Your task to perform on an android device: Open network settings Image 0: 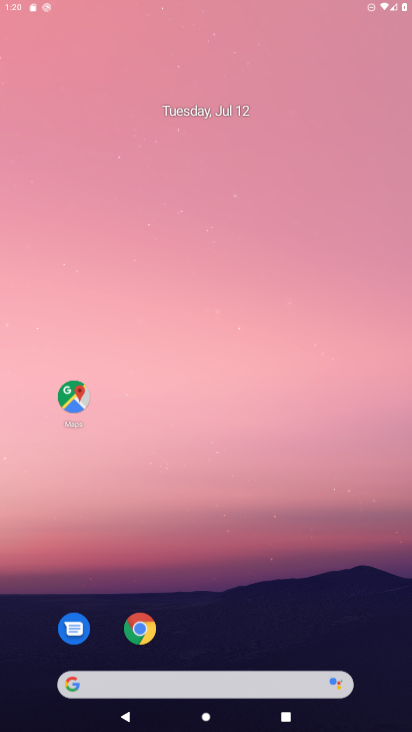
Step 0: press home button
Your task to perform on an android device: Open network settings Image 1: 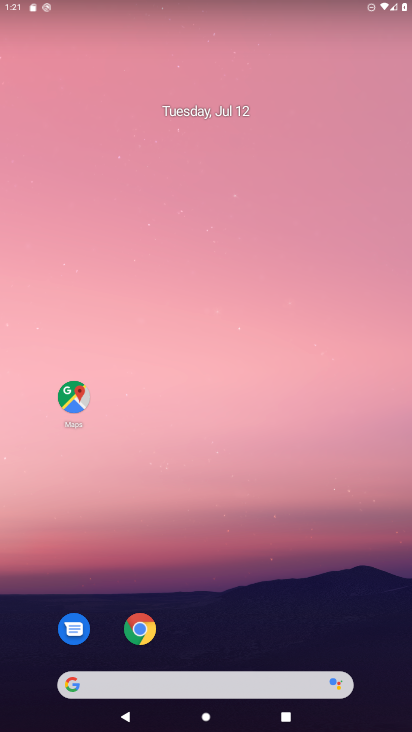
Step 1: drag from (226, 643) to (239, 37)
Your task to perform on an android device: Open network settings Image 2: 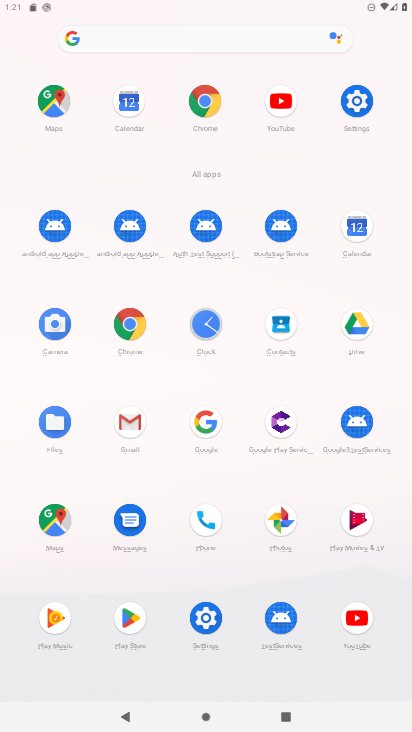
Step 2: click (354, 95)
Your task to perform on an android device: Open network settings Image 3: 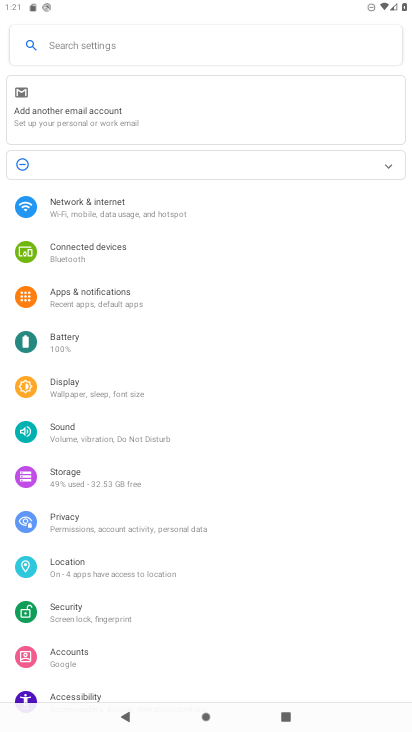
Step 3: click (86, 202)
Your task to perform on an android device: Open network settings Image 4: 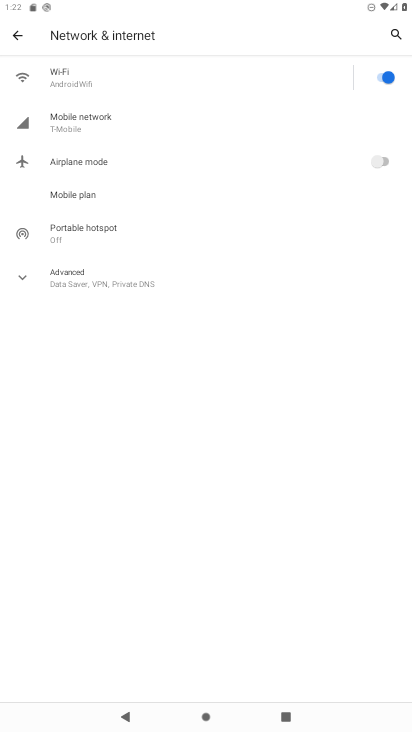
Step 4: click (22, 274)
Your task to perform on an android device: Open network settings Image 5: 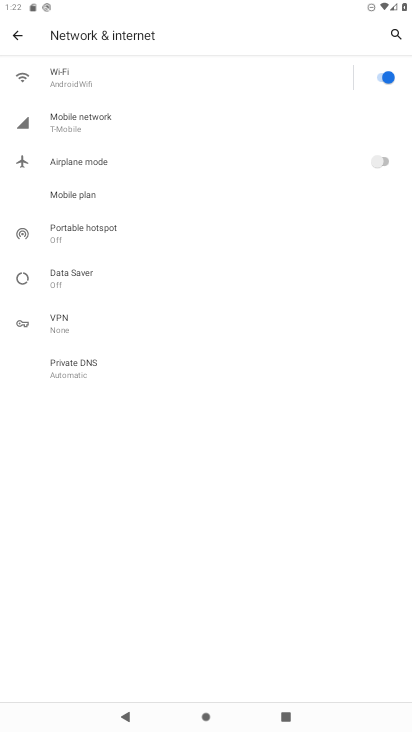
Step 5: task complete